Your task to perform on an android device: toggle sleep mode Image 0: 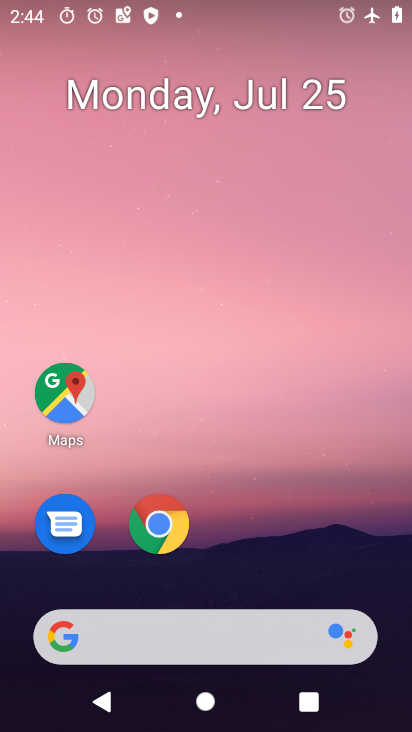
Step 0: press home button
Your task to perform on an android device: toggle sleep mode Image 1: 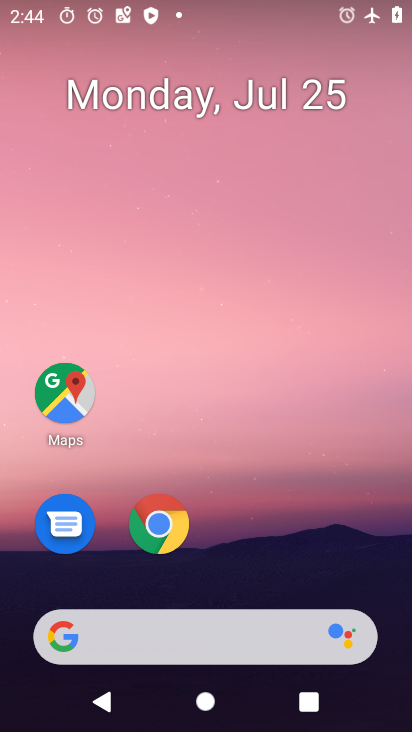
Step 1: drag from (244, 585) to (230, 83)
Your task to perform on an android device: toggle sleep mode Image 2: 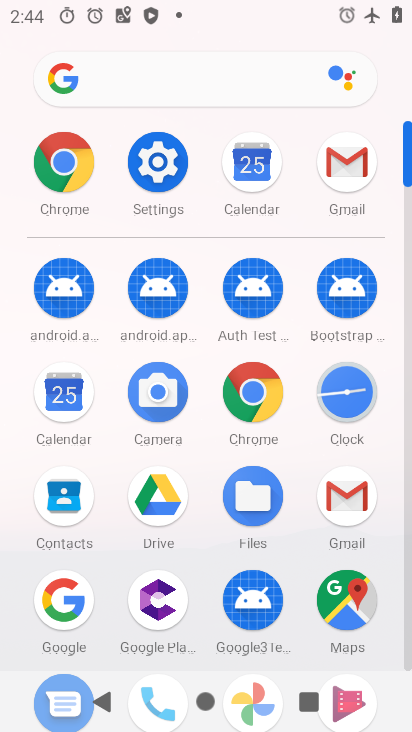
Step 2: click (156, 167)
Your task to perform on an android device: toggle sleep mode Image 3: 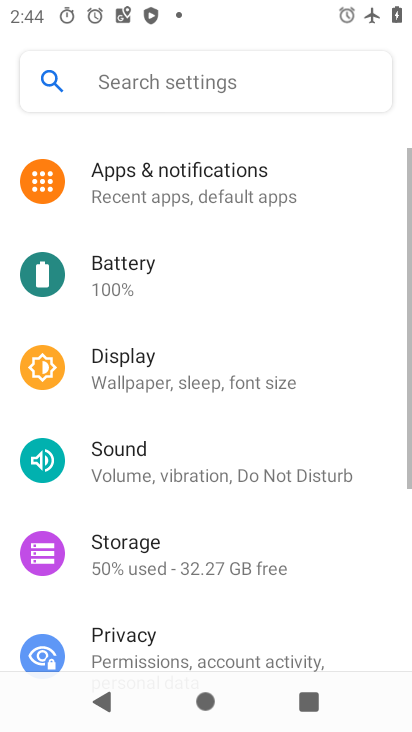
Step 3: click (117, 359)
Your task to perform on an android device: toggle sleep mode Image 4: 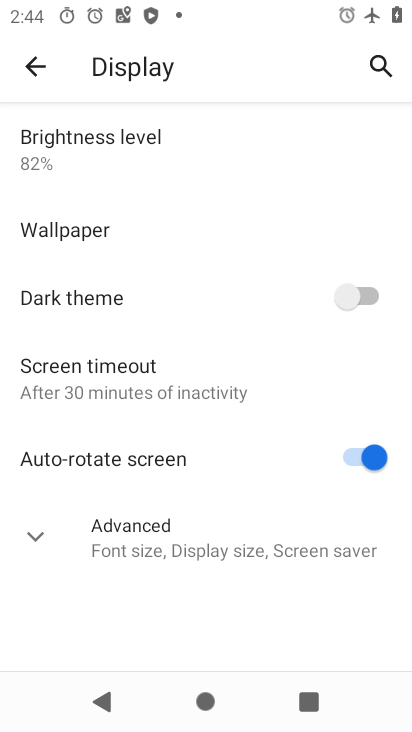
Step 4: task complete